Your task to perform on an android device: See recent photos Image 0: 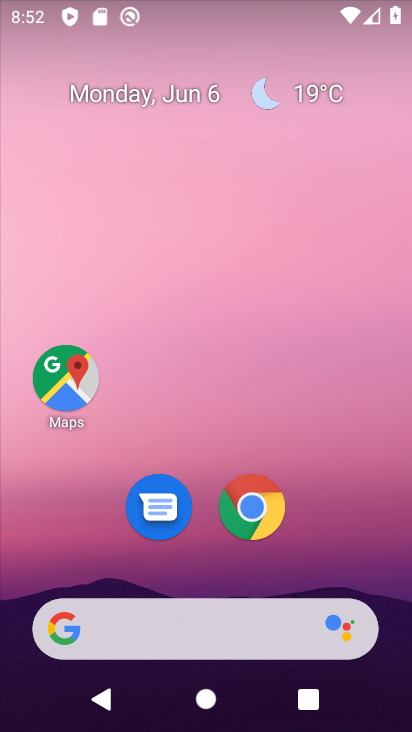
Step 0: drag from (285, 487) to (233, 189)
Your task to perform on an android device: See recent photos Image 1: 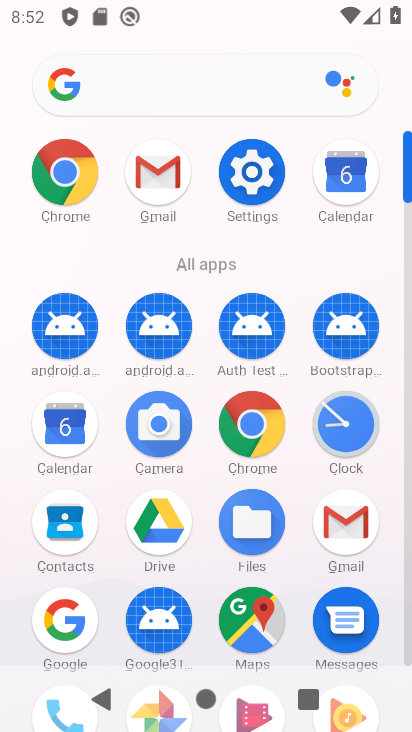
Step 1: drag from (164, 654) to (195, 376)
Your task to perform on an android device: See recent photos Image 2: 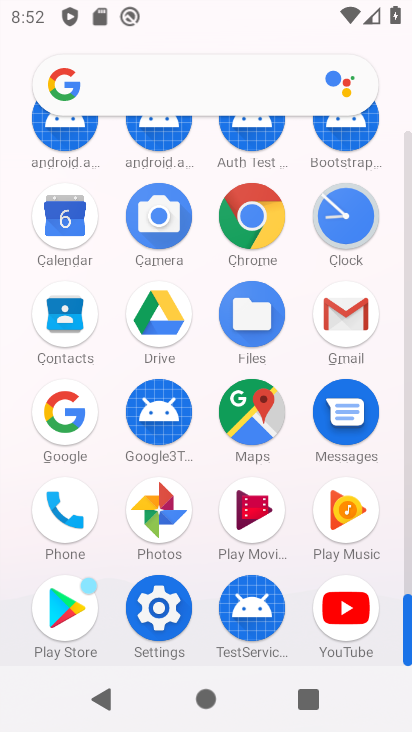
Step 2: click (157, 500)
Your task to perform on an android device: See recent photos Image 3: 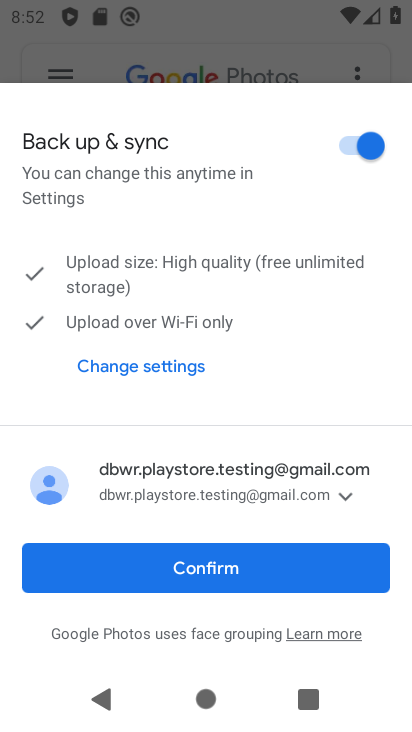
Step 3: click (187, 570)
Your task to perform on an android device: See recent photos Image 4: 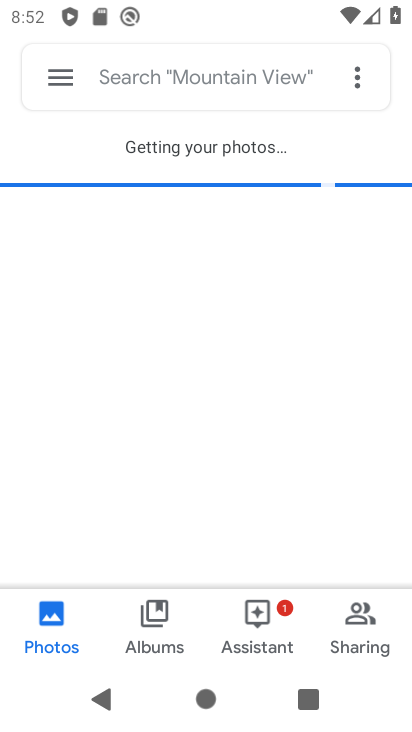
Step 4: click (153, 606)
Your task to perform on an android device: See recent photos Image 5: 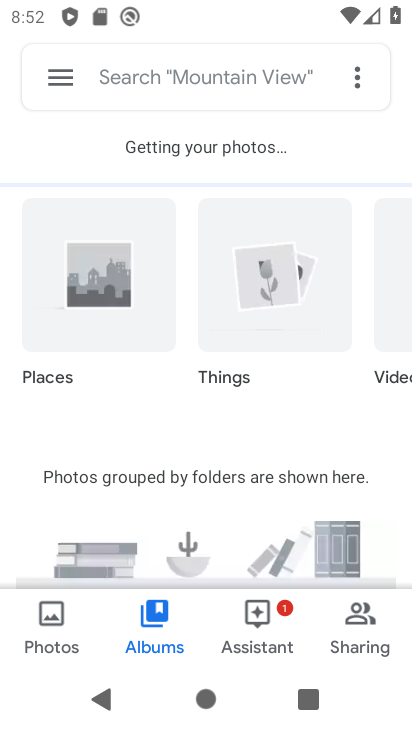
Step 5: click (57, 612)
Your task to perform on an android device: See recent photos Image 6: 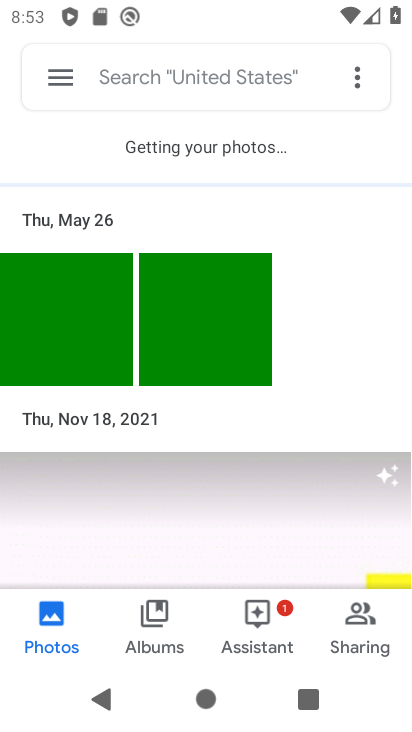
Step 6: task complete